Your task to perform on an android device: set an alarm Image 0: 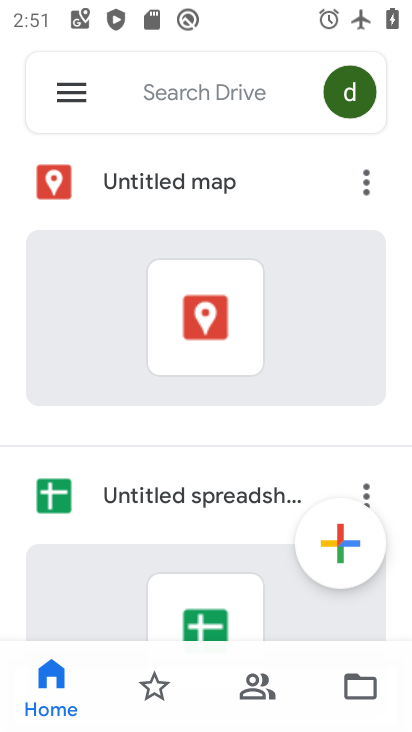
Step 0: press home button
Your task to perform on an android device: set an alarm Image 1: 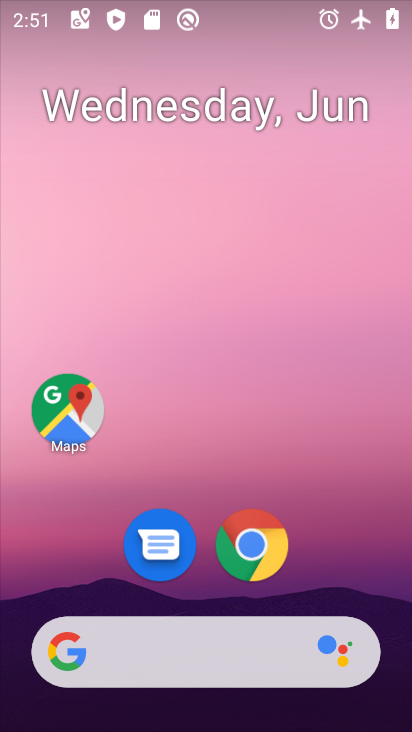
Step 1: drag from (360, 522) to (299, 92)
Your task to perform on an android device: set an alarm Image 2: 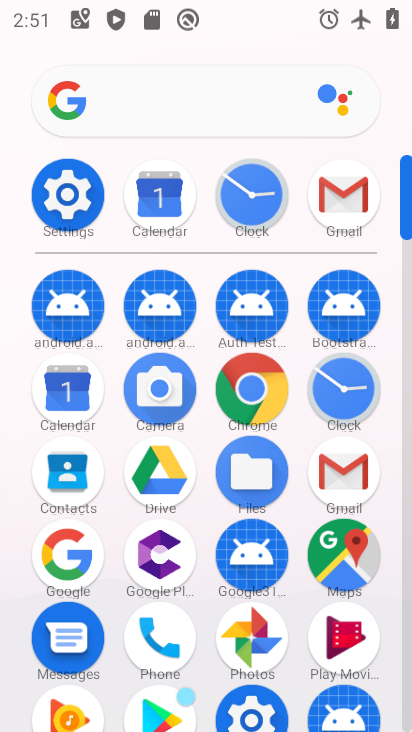
Step 2: click (332, 402)
Your task to perform on an android device: set an alarm Image 3: 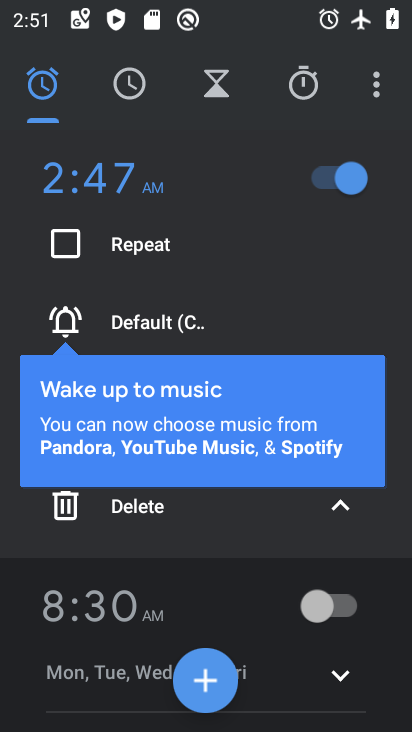
Step 3: click (210, 680)
Your task to perform on an android device: set an alarm Image 4: 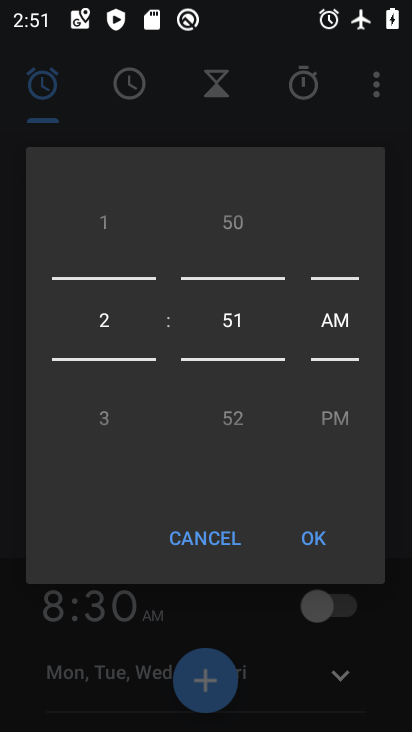
Step 4: click (325, 546)
Your task to perform on an android device: set an alarm Image 5: 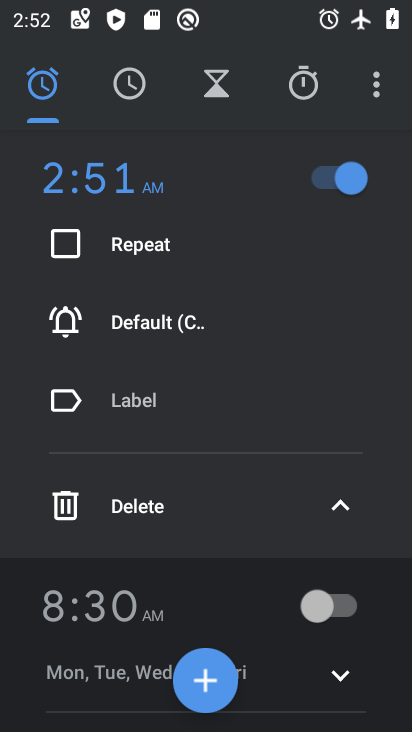
Step 5: task complete